Your task to perform on an android device: turn off notifications settings in the gmail app Image 0: 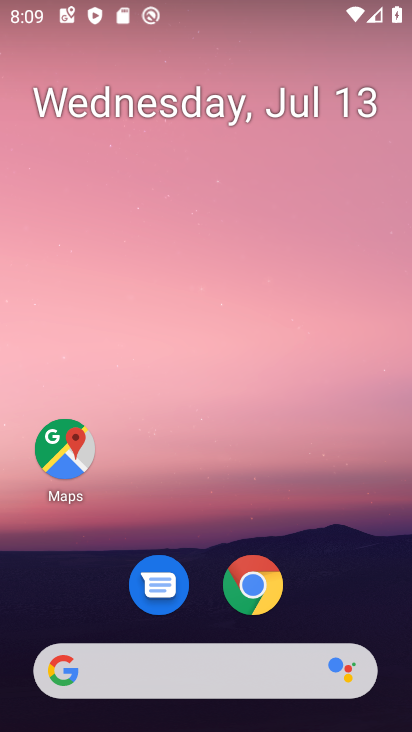
Step 0: drag from (221, 448) to (243, 1)
Your task to perform on an android device: turn off notifications settings in the gmail app Image 1: 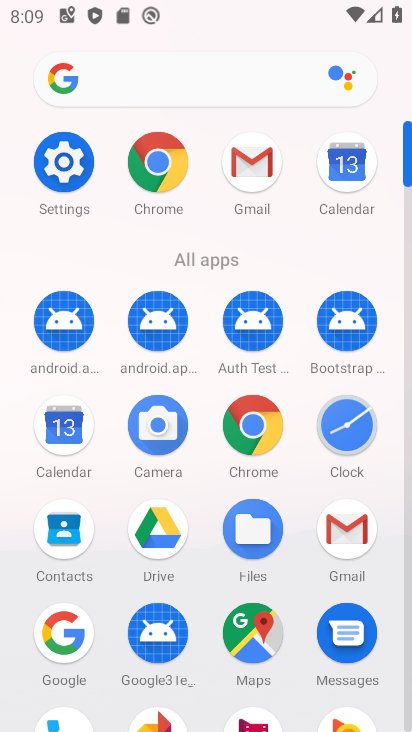
Step 1: click (250, 176)
Your task to perform on an android device: turn off notifications settings in the gmail app Image 2: 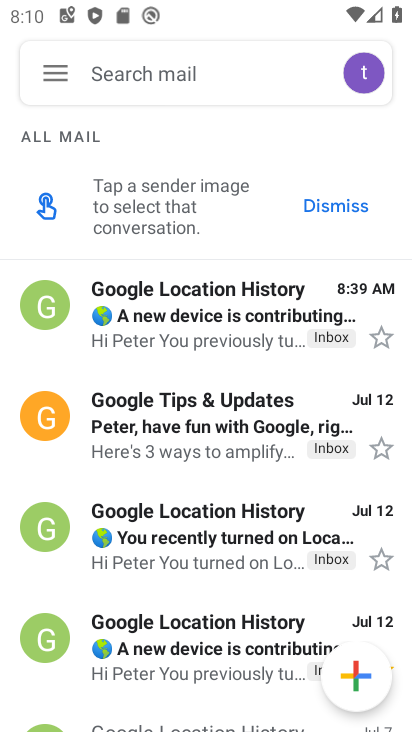
Step 2: click (55, 75)
Your task to perform on an android device: turn off notifications settings in the gmail app Image 3: 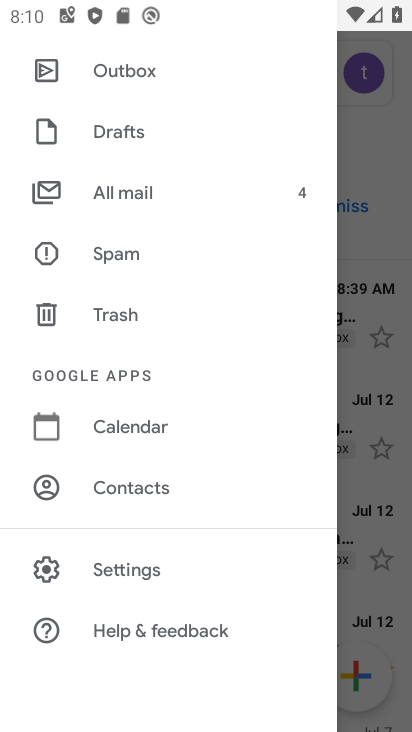
Step 3: click (138, 567)
Your task to perform on an android device: turn off notifications settings in the gmail app Image 4: 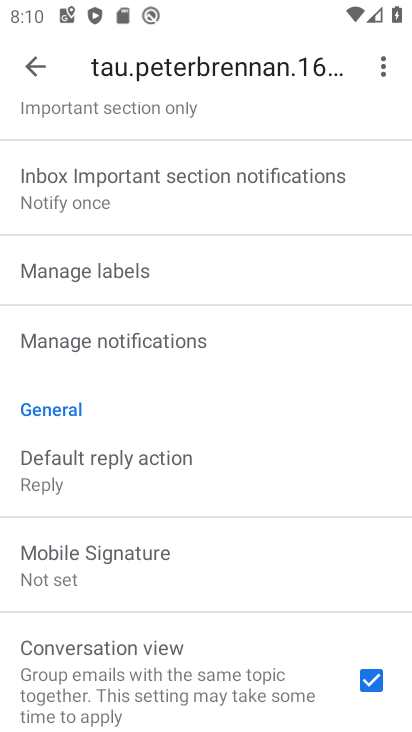
Step 4: click (124, 340)
Your task to perform on an android device: turn off notifications settings in the gmail app Image 5: 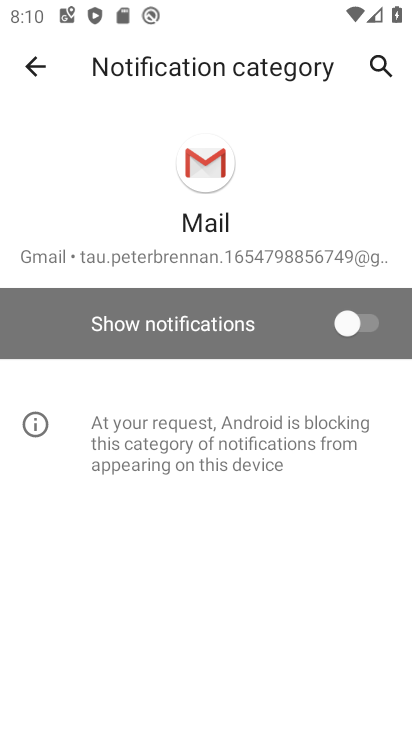
Step 5: task complete